Your task to perform on an android device: Go to settings Image 0: 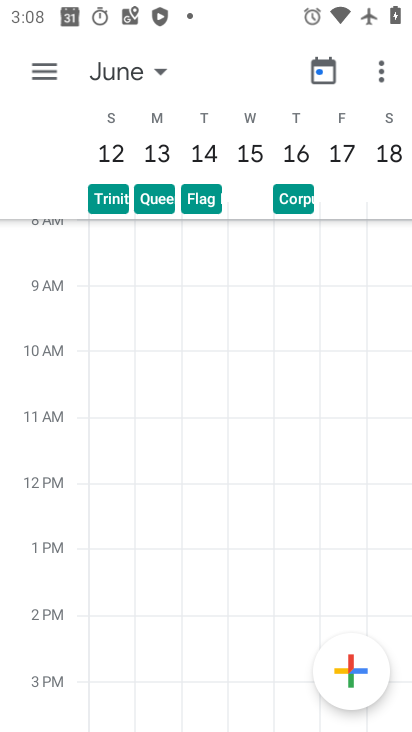
Step 0: press home button
Your task to perform on an android device: Go to settings Image 1: 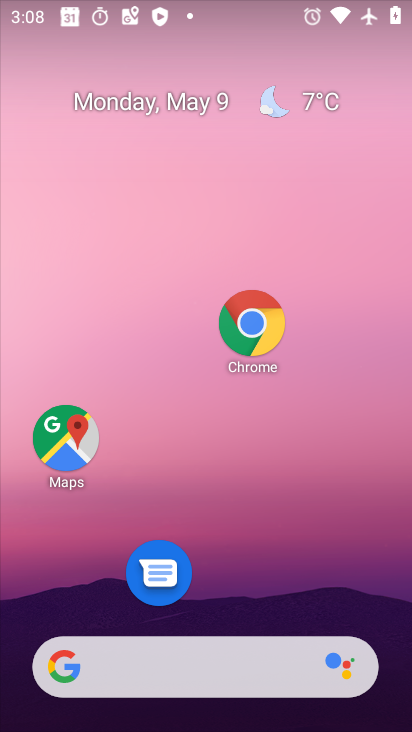
Step 1: drag from (139, 667) to (260, 38)
Your task to perform on an android device: Go to settings Image 2: 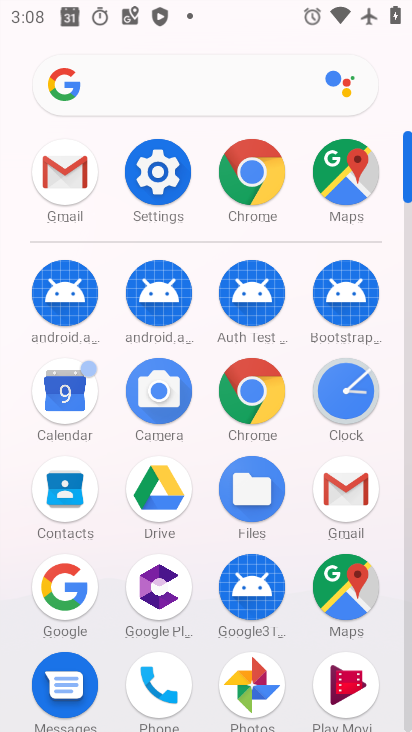
Step 2: click (144, 184)
Your task to perform on an android device: Go to settings Image 3: 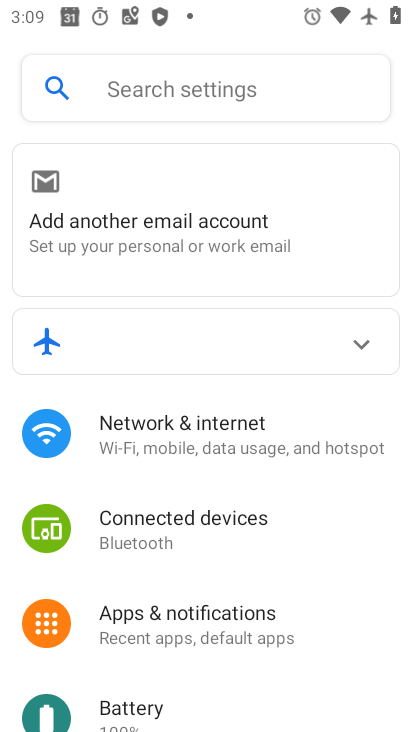
Step 3: task complete